Your task to perform on an android device: Do I have any events this weekend? Image 0: 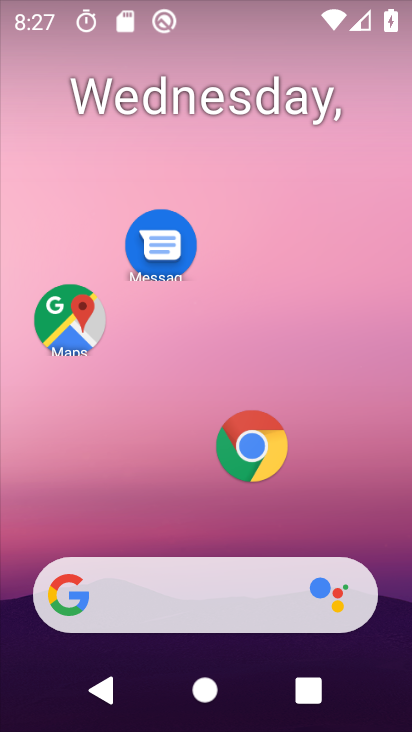
Step 0: drag from (353, 297) to (41, 316)
Your task to perform on an android device: Do I have any events this weekend? Image 1: 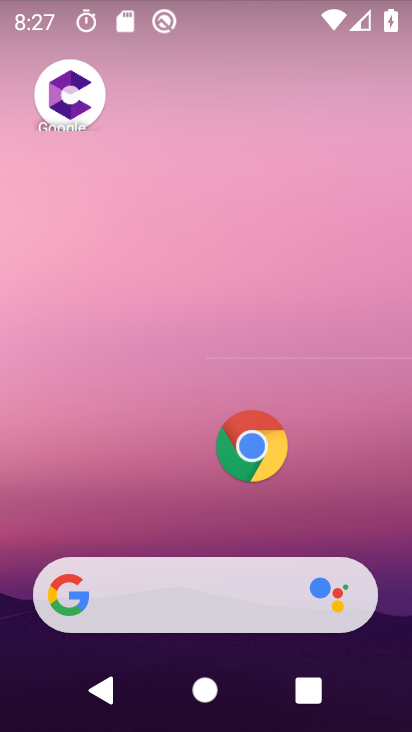
Step 1: drag from (59, 333) to (411, 343)
Your task to perform on an android device: Do I have any events this weekend? Image 2: 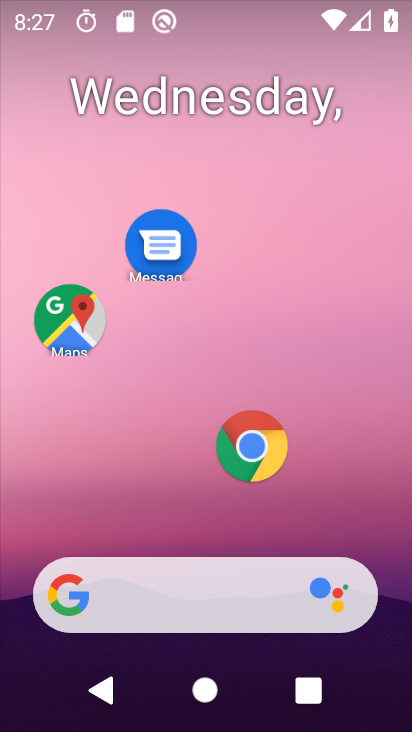
Step 2: drag from (212, 524) to (221, 135)
Your task to perform on an android device: Do I have any events this weekend? Image 3: 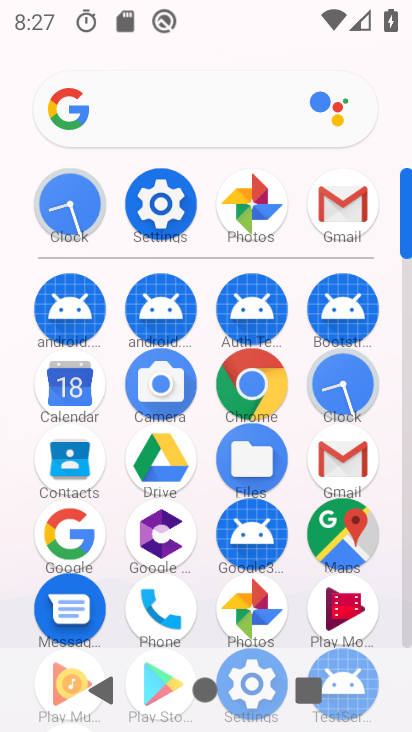
Step 3: click (68, 383)
Your task to perform on an android device: Do I have any events this weekend? Image 4: 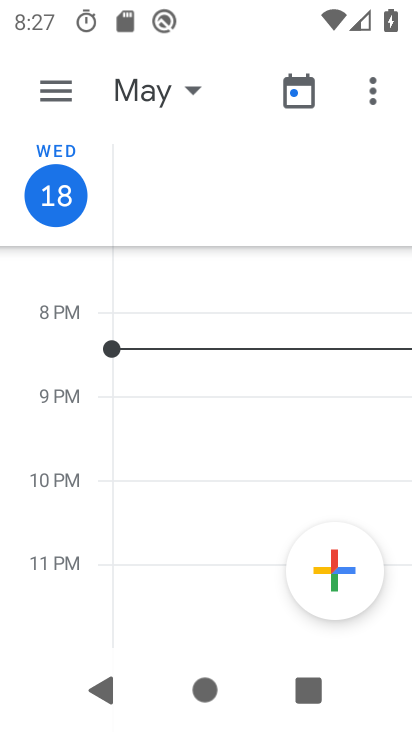
Step 4: drag from (73, 594) to (75, 334)
Your task to perform on an android device: Do I have any events this weekend? Image 5: 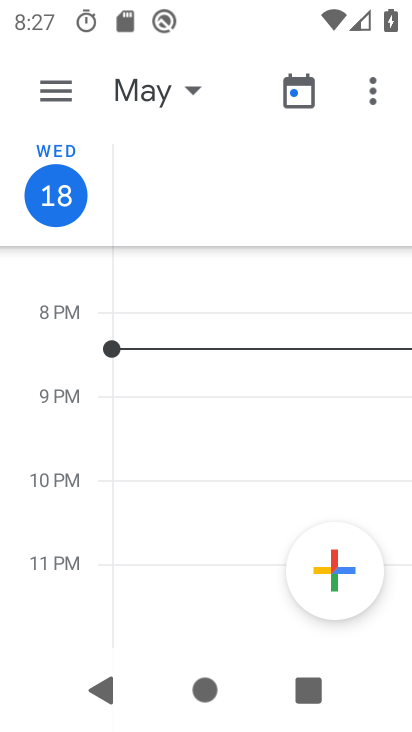
Step 5: click (64, 88)
Your task to perform on an android device: Do I have any events this weekend? Image 6: 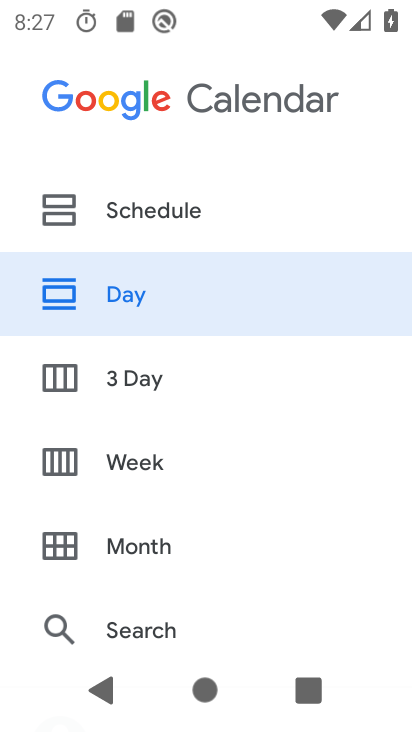
Step 6: click (134, 465)
Your task to perform on an android device: Do I have any events this weekend? Image 7: 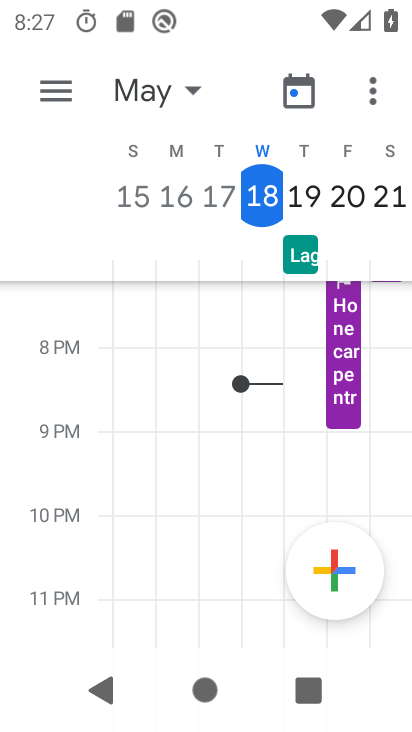
Step 7: click (260, 188)
Your task to perform on an android device: Do I have any events this weekend? Image 8: 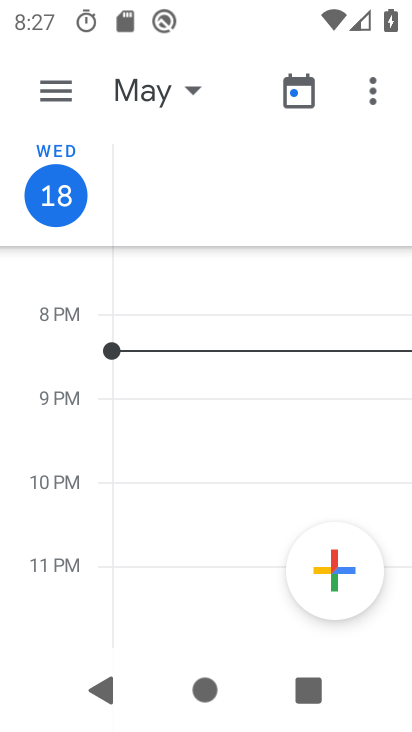
Step 8: click (75, 224)
Your task to perform on an android device: Do I have any events this weekend? Image 9: 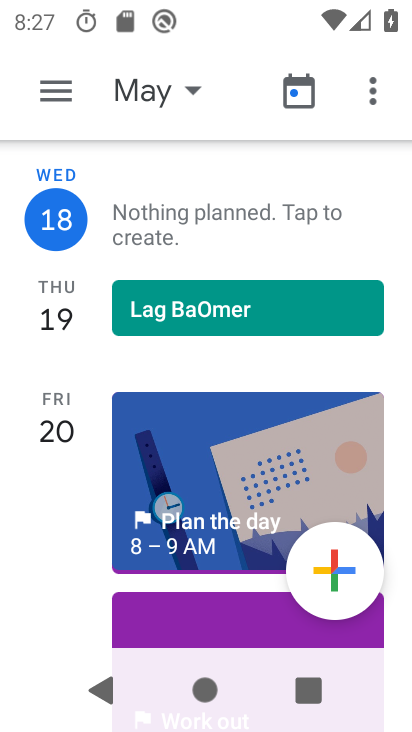
Step 9: drag from (69, 525) to (56, 255)
Your task to perform on an android device: Do I have any events this weekend? Image 10: 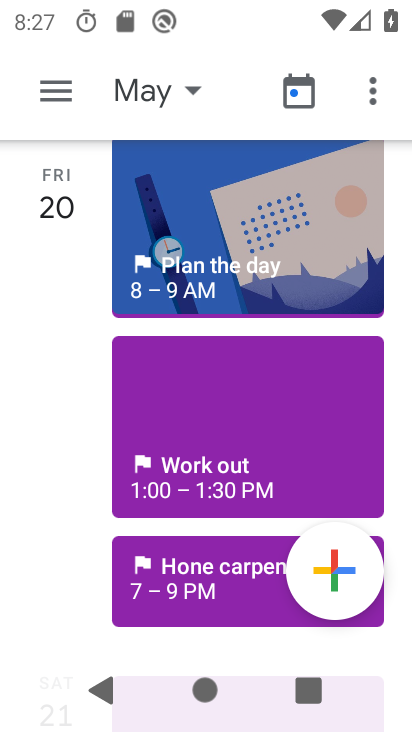
Step 10: drag from (76, 592) to (78, 199)
Your task to perform on an android device: Do I have any events this weekend? Image 11: 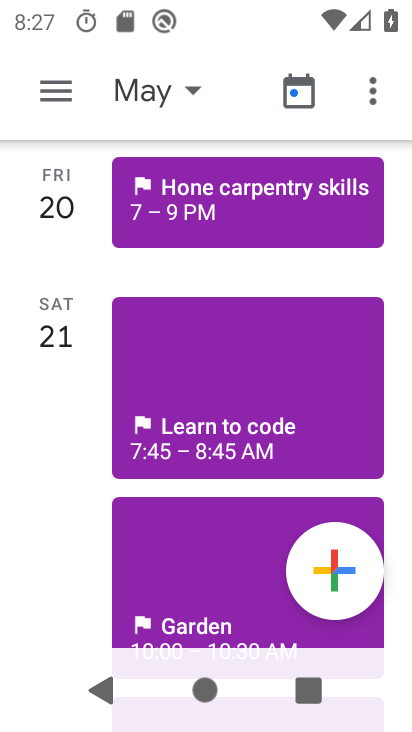
Step 11: drag from (69, 532) to (78, 290)
Your task to perform on an android device: Do I have any events this weekend? Image 12: 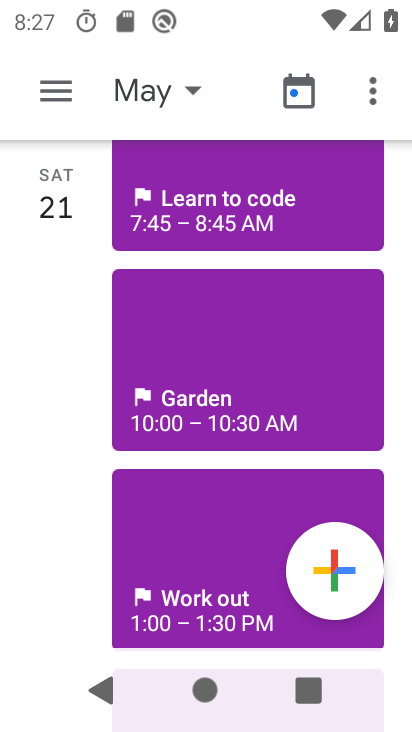
Step 12: click (72, 249)
Your task to perform on an android device: Do I have any events this weekend? Image 13: 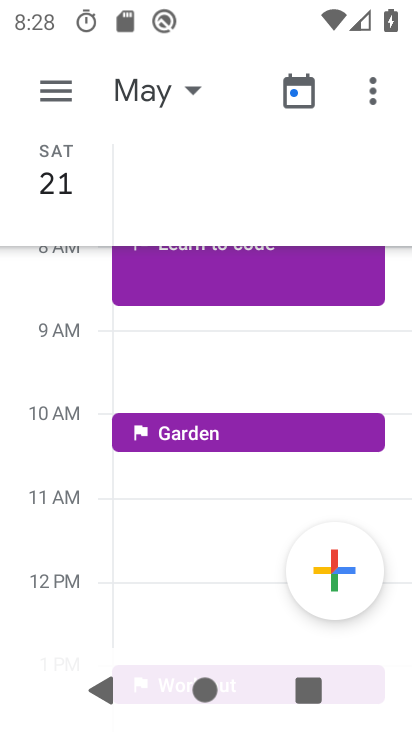
Step 13: click (75, 216)
Your task to perform on an android device: Do I have any events this weekend? Image 14: 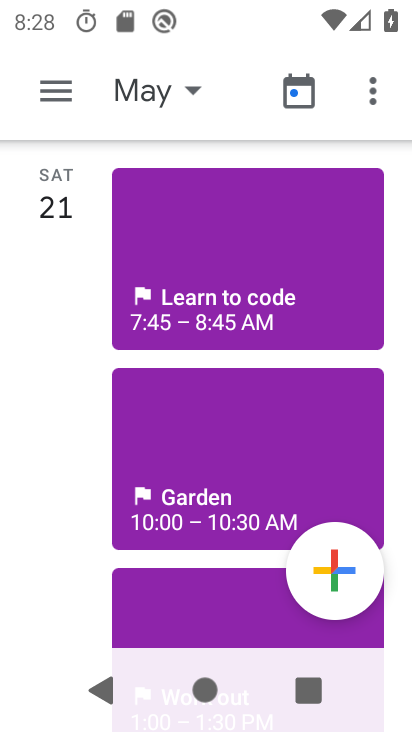
Step 14: drag from (84, 541) to (68, 258)
Your task to perform on an android device: Do I have any events this weekend? Image 15: 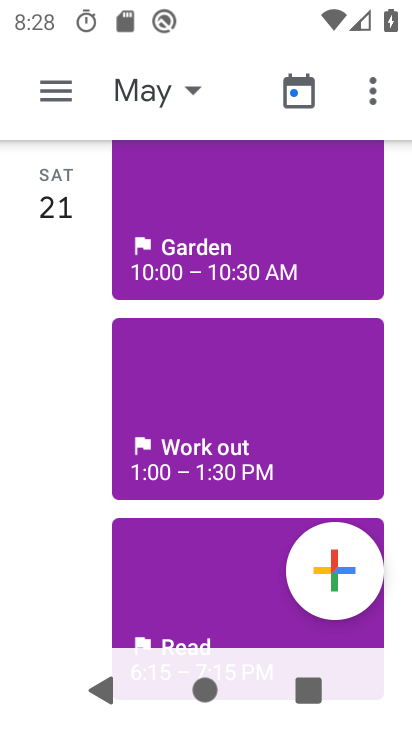
Step 15: click (68, 226)
Your task to perform on an android device: Do I have any events this weekend? Image 16: 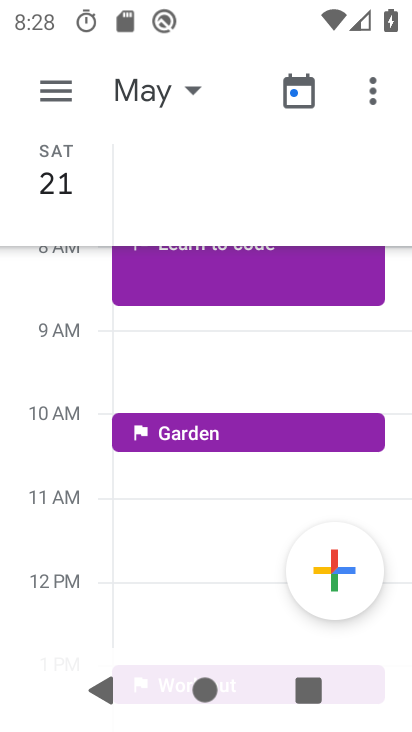
Step 16: click (64, 208)
Your task to perform on an android device: Do I have any events this weekend? Image 17: 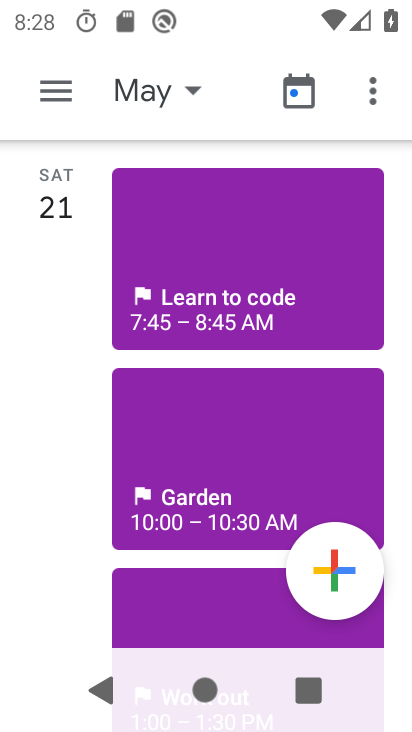
Step 17: task complete